Your task to perform on an android device: toggle airplane mode Image 0: 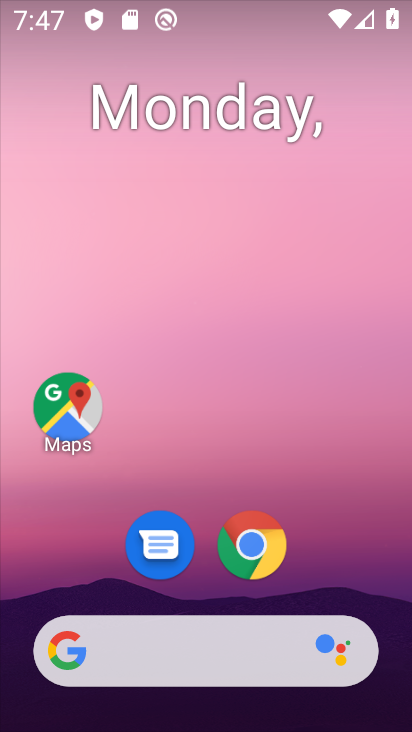
Step 0: drag from (201, 587) to (215, 166)
Your task to perform on an android device: toggle airplane mode Image 1: 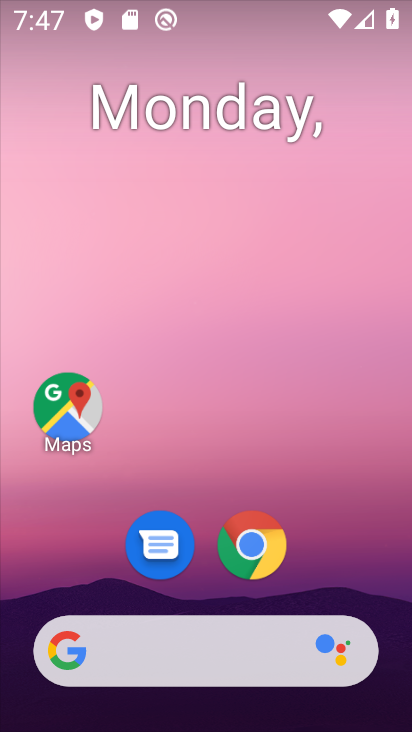
Step 1: drag from (218, 597) to (213, 188)
Your task to perform on an android device: toggle airplane mode Image 2: 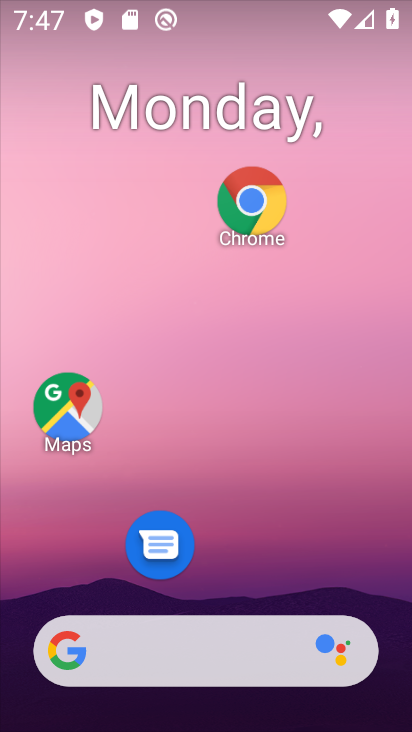
Step 2: drag from (224, 383) to (228, 131)
Your task to perform on an android device: toggle airplane mode Image 3: 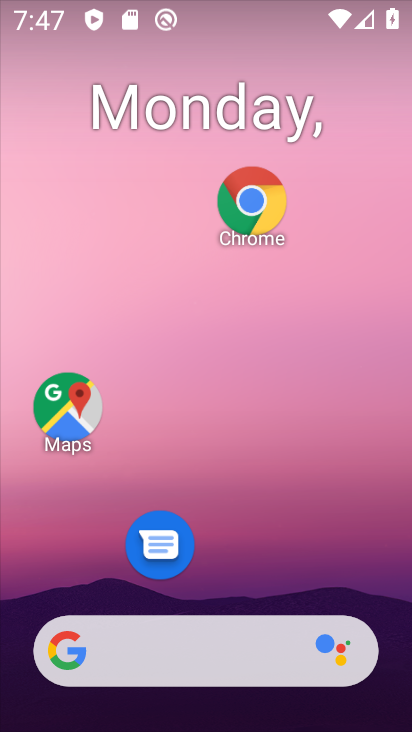
Step 3: drag from (252, 410) to (252, 135)
Your task to perform on an android device: toggle airplane mode Image 4: 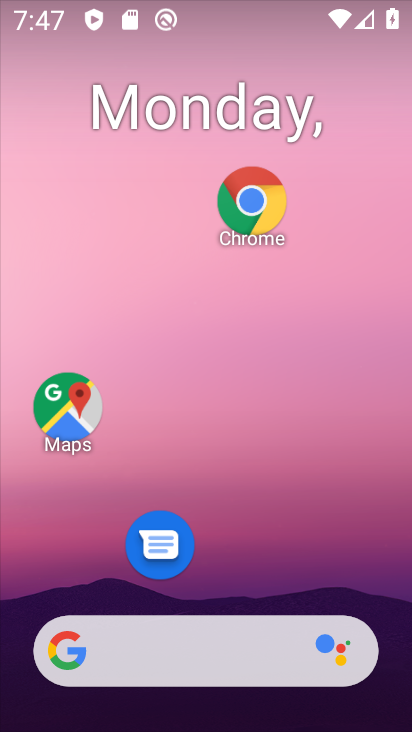
Step 4: drag from (242, 573) to (316, 109)
Your task to perform on an android device: toggle airplane mode Image 5: 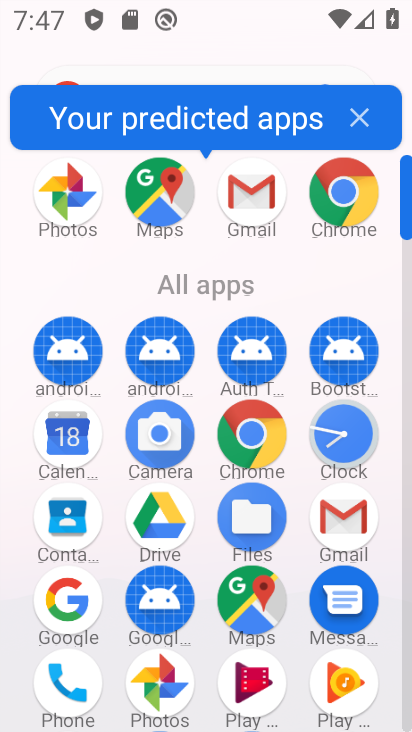
Step 5: drag from (203, 553) to (215, 240)
Your task to perform on an android device: toggle airplane mode Image 6: 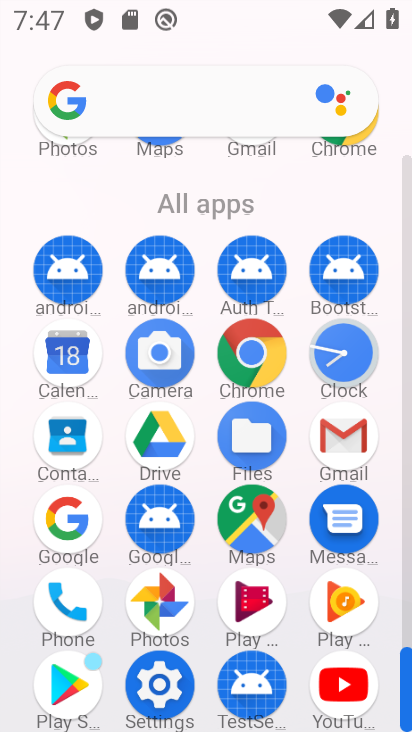
Step 6: click (165, 655)
Your task to perform on an android device: toggle airplane mode Image 7: 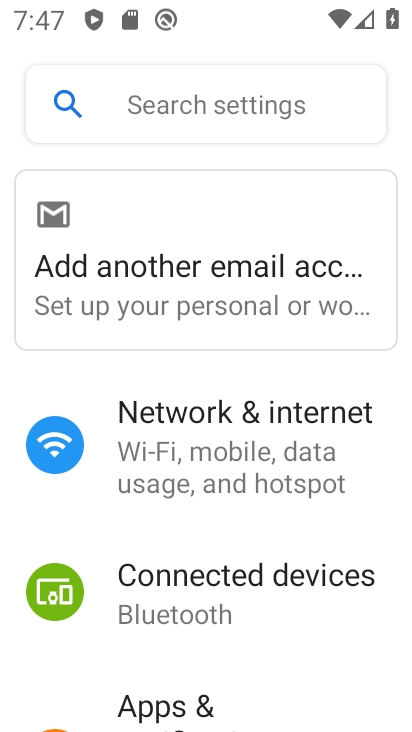
Step 7: click (245, 413)
Your task to perform on an android device: toggle airplane mode Image 8: 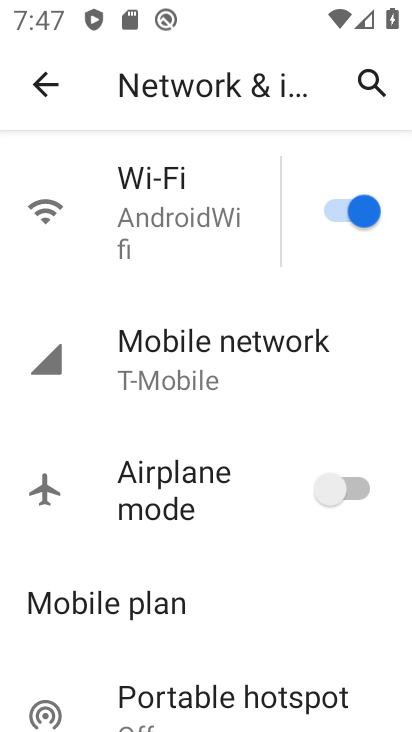
Step 8: click (345, 470)
Your task to perform on an android device: toggle airplane mode Image 9: 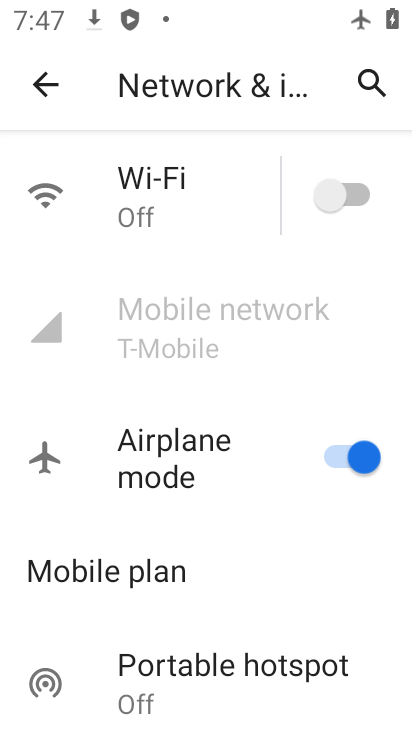
Step 9: task complete